Your task to perform on an android device: Go to Wikipedia Image 0: 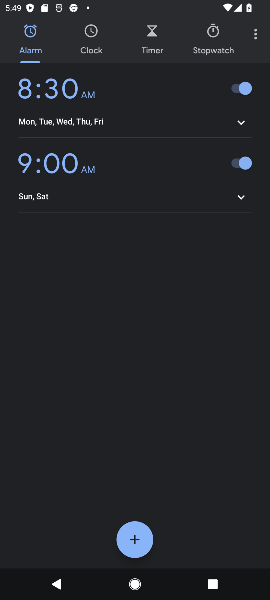
Step 0: press home button
Your task to perform on an android device: Go to Wikipedia Image 1: 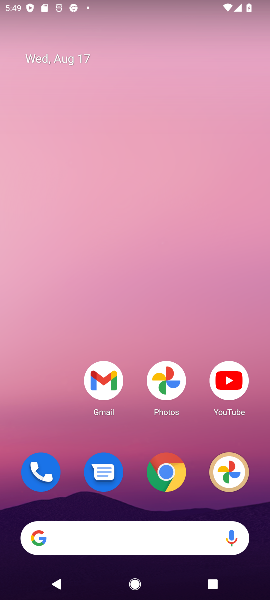
Step 1: click (174, 472)
Your task to perform on an android device: Go to Wikipedia Image 2: 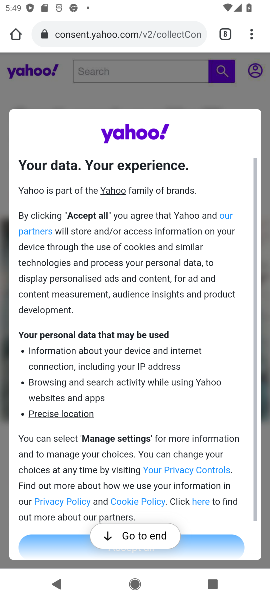
Step 2: click (222, 39)
Your task to perform on an android device: Go to Wikipedia Image 3: 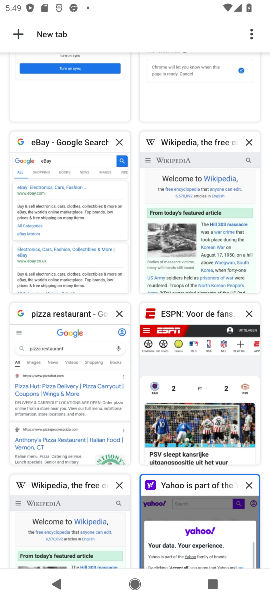
Step 3: click (15, 34)
Your task to perform on an android device: Go to Wikipedia Image 4: 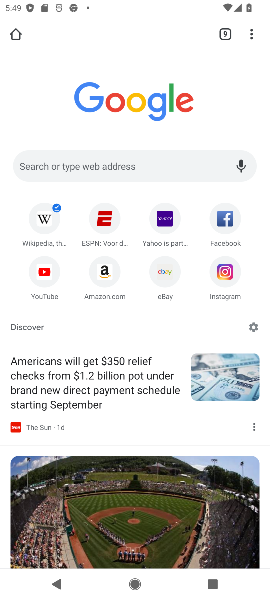
Step 4: click (41, 219)
Your task to perform on an android device: Go to Wikipedia Image 5: 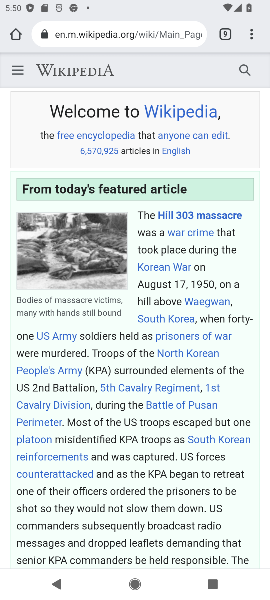
Step 5: task complete